Your task to perform on an android device: Go to accessibility settings Image 0: 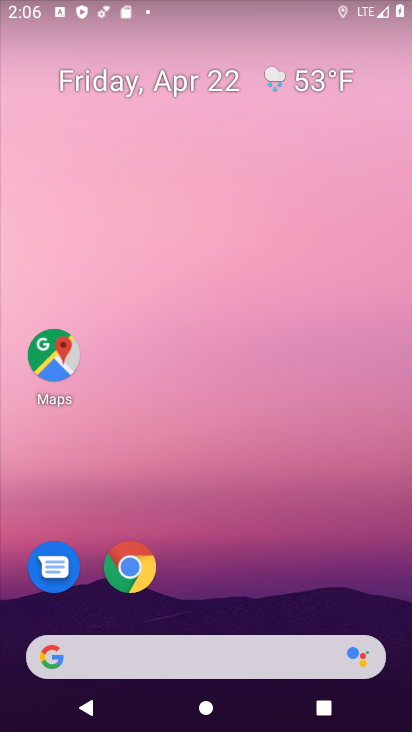
Step 0: drag from (346, 564) to (286, 122)
Your task to perform on an android device: Go to accessibility settings Image 1: 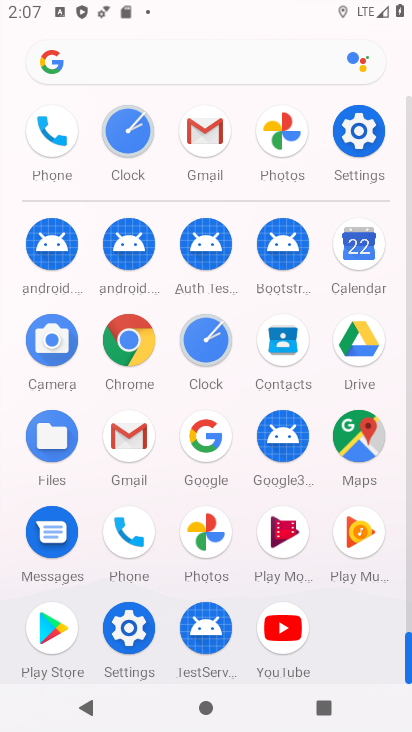
Step 1: click (124, 627)
Your task to perform on an android device: Go to accessibility settings Image 2: 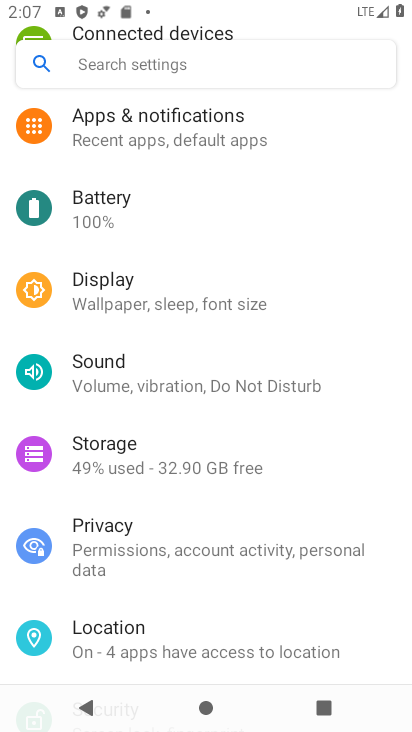
Step 2: drag from (288, 590) to (306, 360)
Your task to perform on an android device: Go to accessibility settings Image 3: 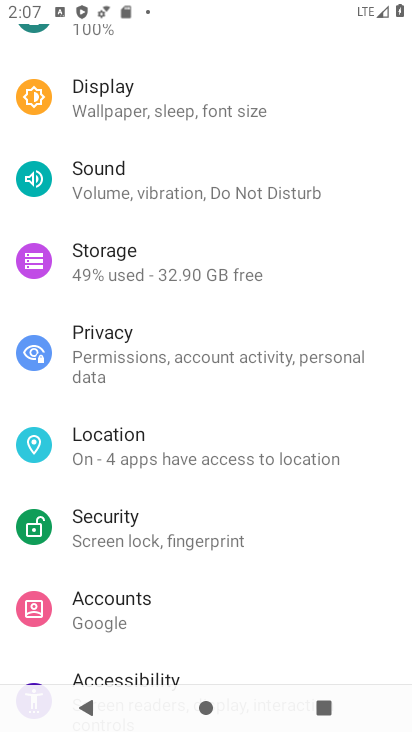
Step 3: drag from (267, 576) to (263, 236)
Your task to perform on an android device: Go to accessibility settings Image 4: 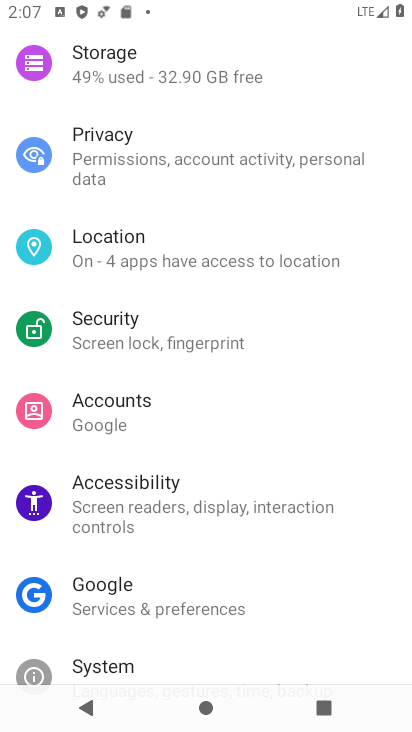
Step 4: click (137, 499)
Your task to perform on an android device: Go to accessibility settings Image 5: 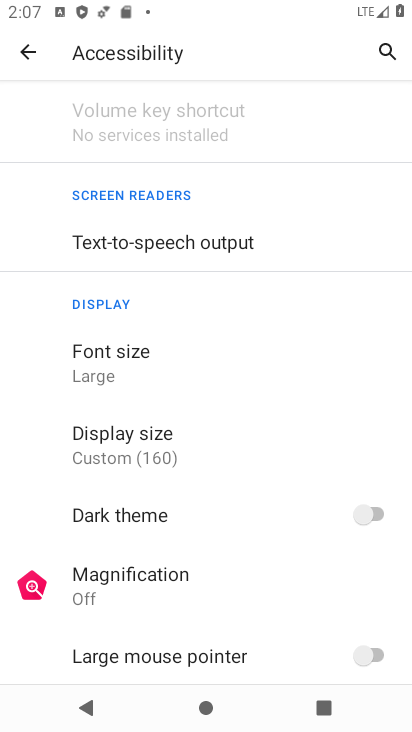
Step 5: task complete